Your task to perform on an android device: move an email to a new category in the gmail app Image 0: 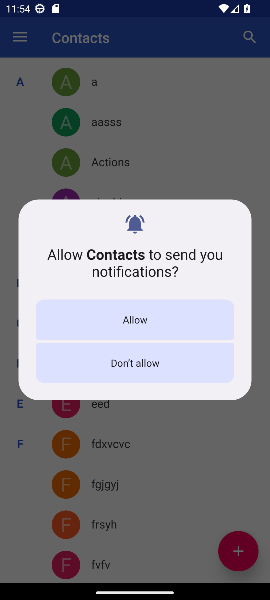
Step 0: press home button
Your task to perform on an android device: move an email to a new category in the gmail app Image 1: 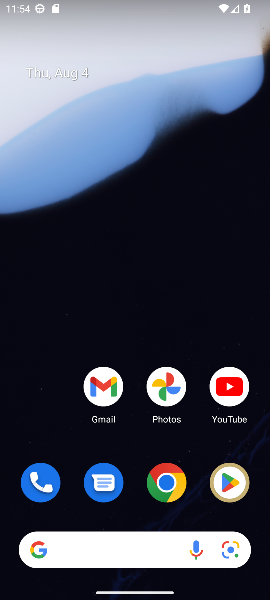
Step 1: drag from (145, 507) to (130, 131)
Your task to perform on an android device: move an email to a new category in the gmail app Image 2: 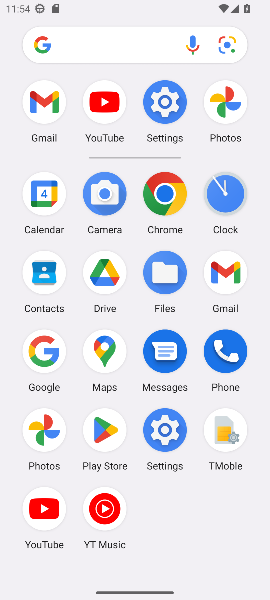
Step 2: click (213, 282)
Your task to perform on an android device: move an email to a new category in the gmail app Image 3: 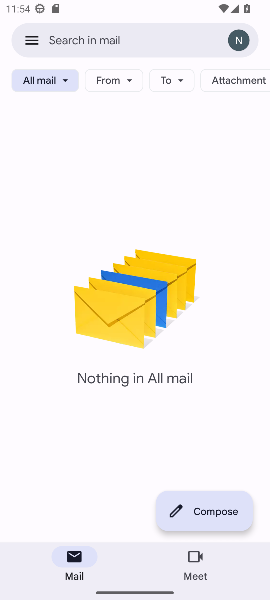
Step 3: click (35, 41)
Your task to perform on an android device: move an email to a new category in the gmail app Image 4: 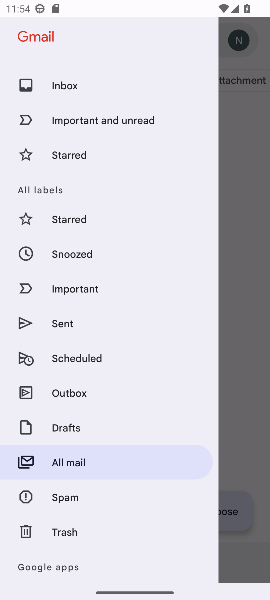
Step 4: click (231, 322)
Your task to perform on an android device: move an email to a new category in the gmail app Image 5: 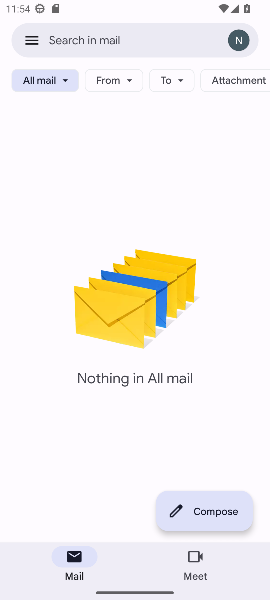
Step 5: task complete